Your task to perform on an android device: turn off improve location accuracy Image 0: 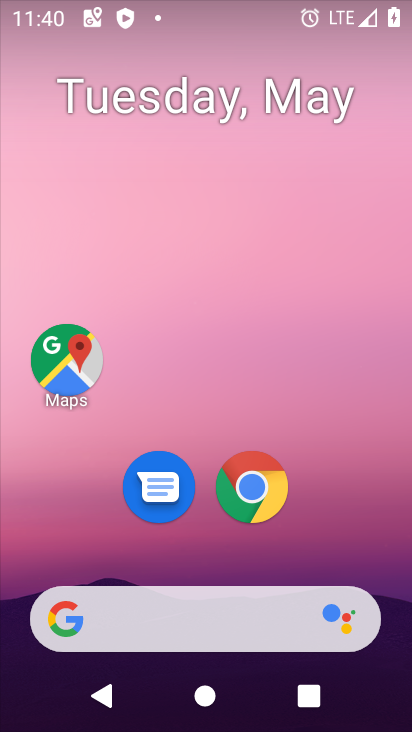
Step 0: drag from (237, 531) to (253, 135)
Your task to perform on an android device: turn off improve location accuracy Image 1: 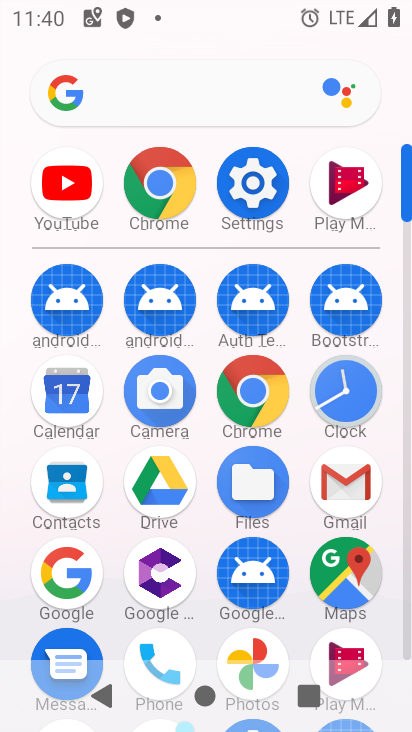
Step 1: click (255, 191)
Your task to perform on an android device: turn off improve location accuracy Image 2: 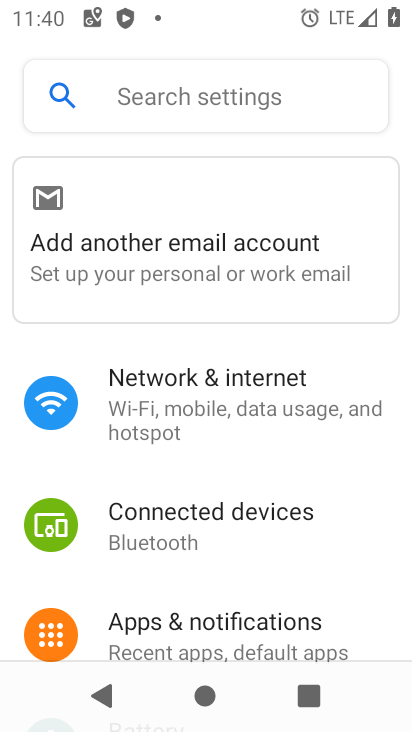
Step 2: drag from (246, 578) to (336, 95)
Your task to perform on an android device: turn off improve location accuracy Image 3: 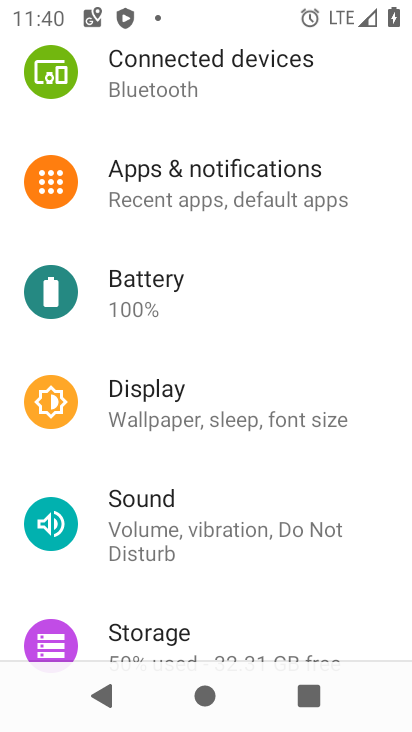
Step 3: drag from (207, 638) to (308, 178)
Your task to perform on an android device: turn off improve location accuracy Image 4: 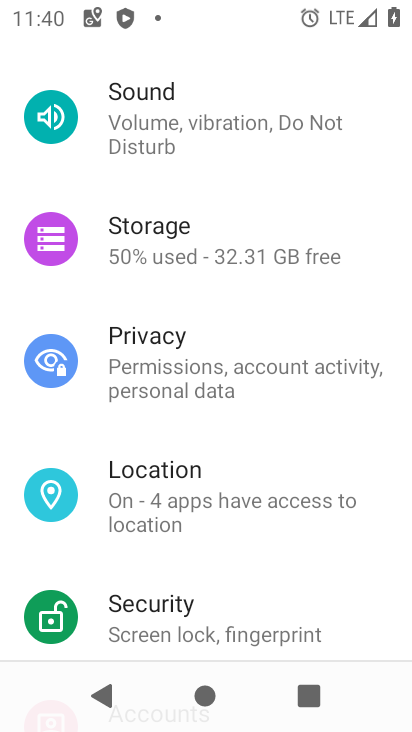
Step 4: click (170, 515)
Your task to perform on an android device: turn off improve location accuracy Image 5: 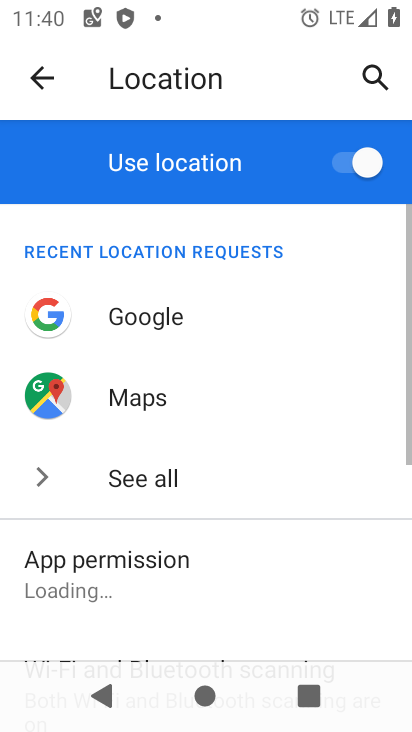
Step 5: drag from (273, 506) to (364, 98)
Your task to perform on an android device: turn off improve location accuracy Image 6: 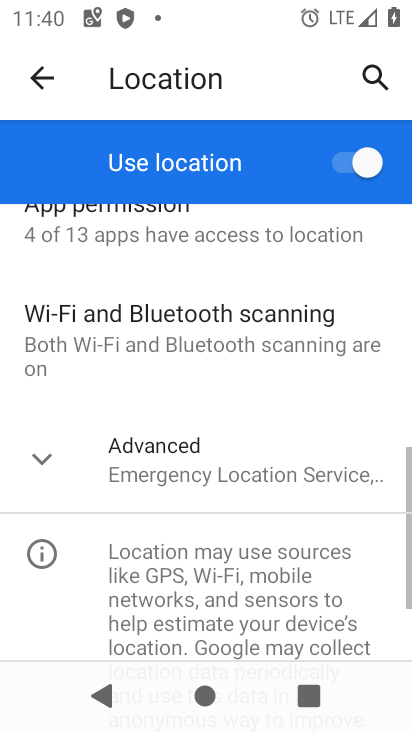
Step 6: click (188, 474)
Your task to perform on an android device: turn off improve location accuracy Image 7: 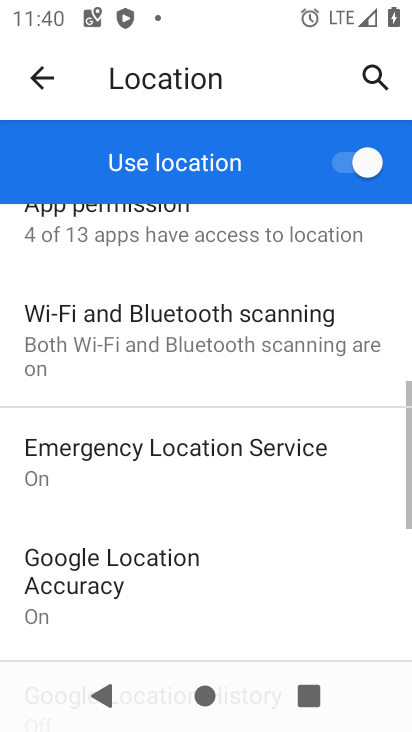
Step 7: drag from (188, 474) to (297, 117)
Your task to perform on an android device: turn off improve location accuracy Image 8: 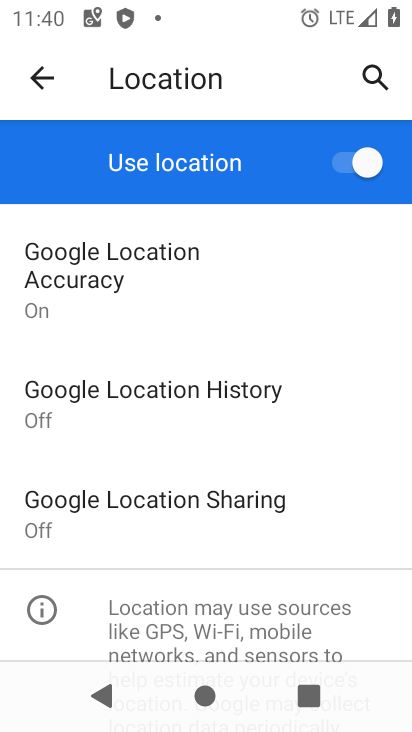
Step 8: drag from (197, 628) to (235, 269)
Your task to perform on an android device: turn off improve location accuracy Image 9: 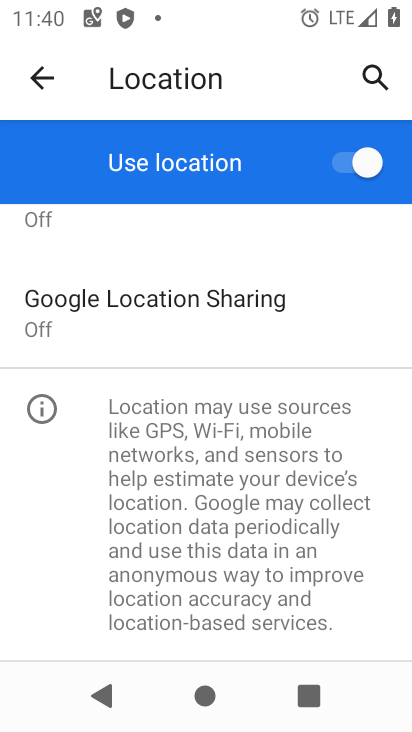
Step 9: drag from (180, 626) to (235, 229)
Your task to perform on an android device: turn off improve location accuracy Image 10: 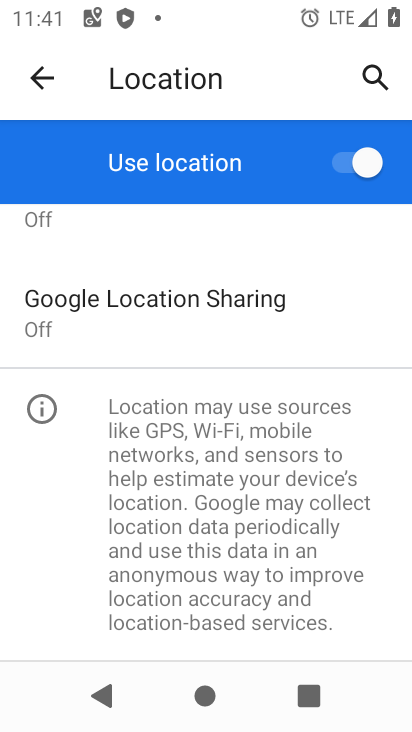
Step 10: drag from (170, 580) to (257, 278)
Your task to perform on an android device: turn off improve location accuracy Image 11: 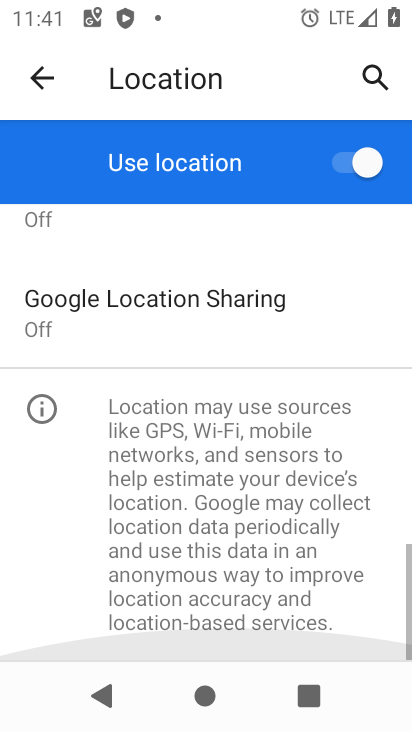
Step 11: drag from (258, 276) to (226, 591)
Your task to perform on an android device: turn off improve location accuracy Image 12: 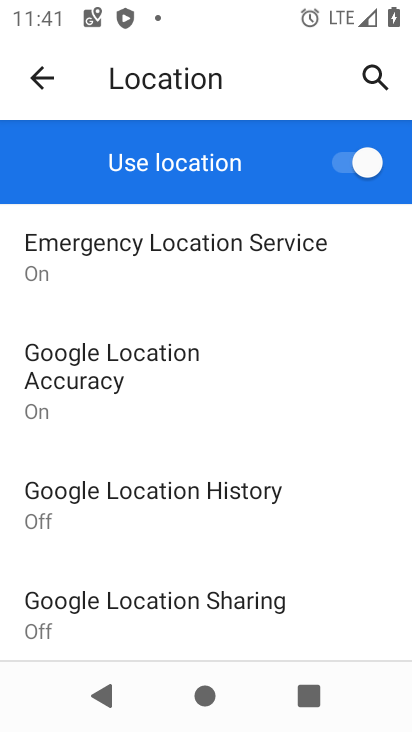
Step 12: click (173, 368)
Your task to perform on an android device: turn off improve location accuracy Image 13: 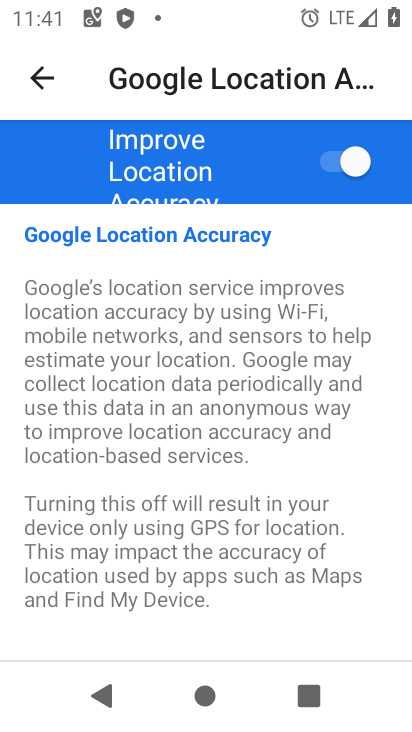
Step 13: click (357, 165)
Your task to perform on an android device: turn off improve location accuracy Image 14: 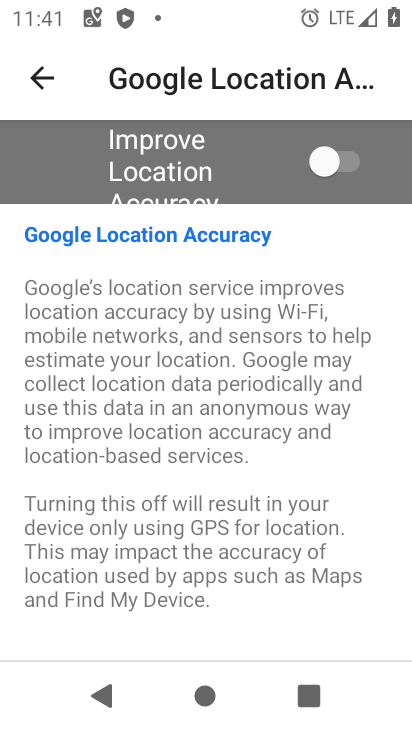
Step 14: task complete